Your task to perform on an android device: What's on my calendar tomorrow? Image 0: 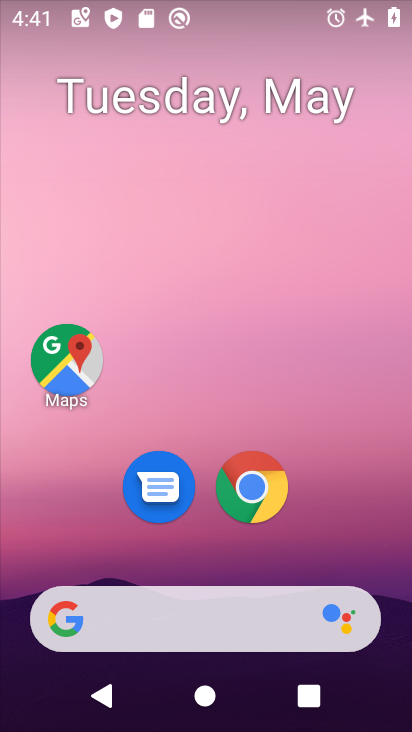
Step 0: drag from (363, 485) to (401, 0)
Your task to perform on an android device: What's on my calendar tomorrow? Image 1: 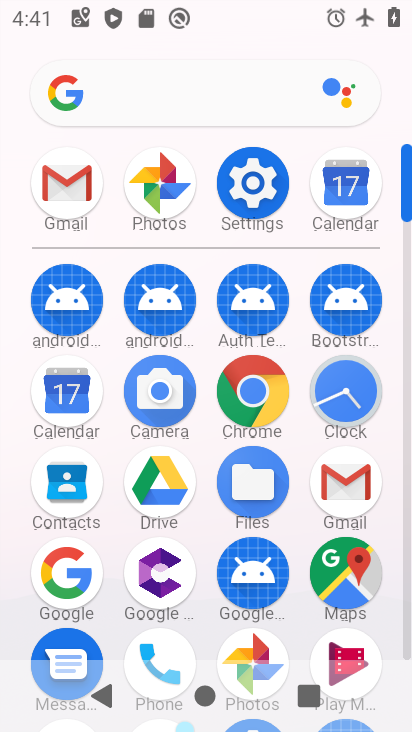
Step 1: click (75, 394)
Your task to perform on an android device: What's on my calendar tomorrow? Image 2: 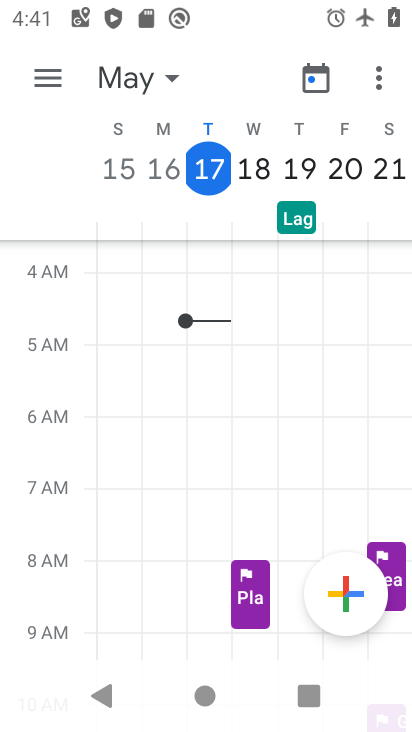
Step 2: click (217, 167)
Your task to perform on an android device: What's on my calendar tomorrow? Image 3: 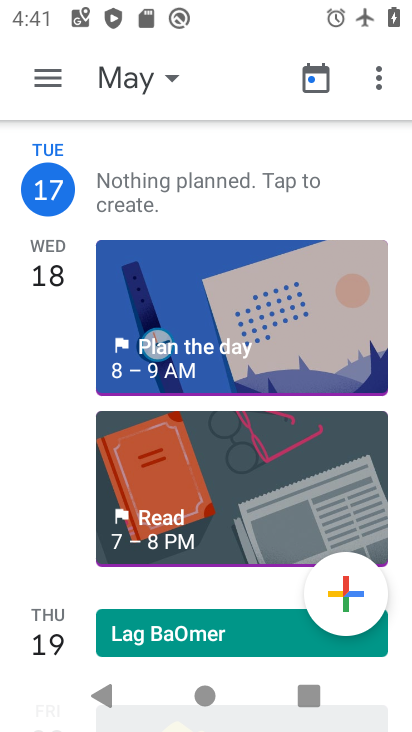
Step 3: click (51, 269)
Your task to perform on an android device: What's on my calendar tomorrow? Image 4: 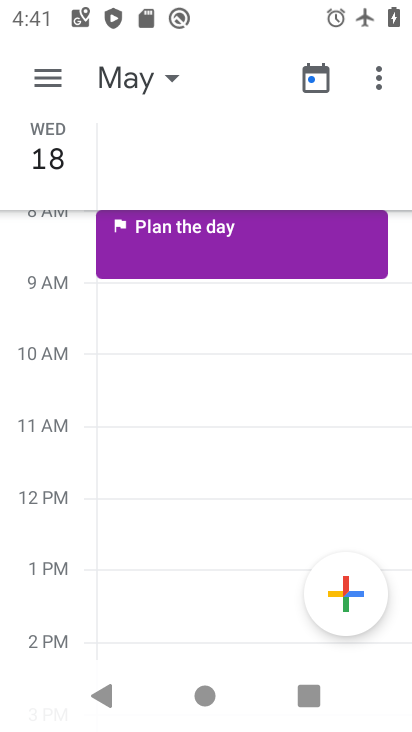
Step 4: task complete